Your task to perform on an android device: set an alarm Image 0: 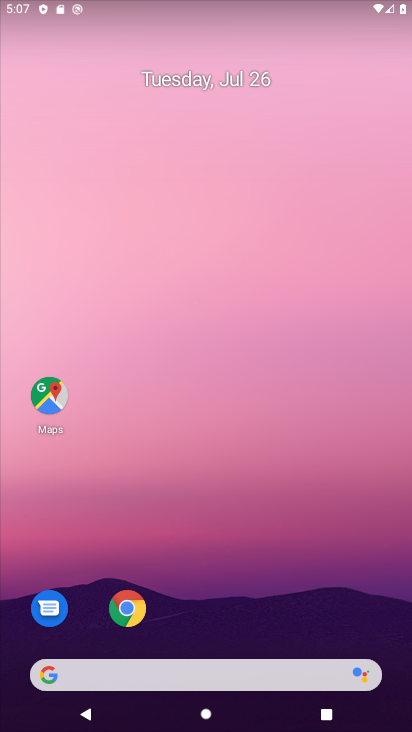
Step 0: drag from (384, 628) to (233, 63)
Your task to perform on an android device: set an alarm Image 1: 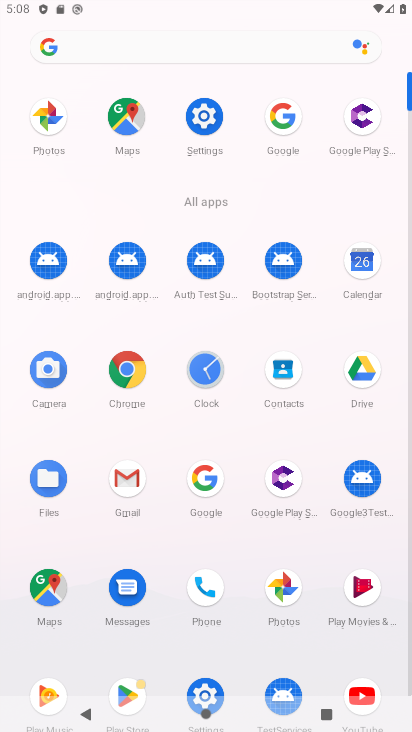
Step 1: click (209, 369)
Your task to perform on an android device: set an alarm Image 2: 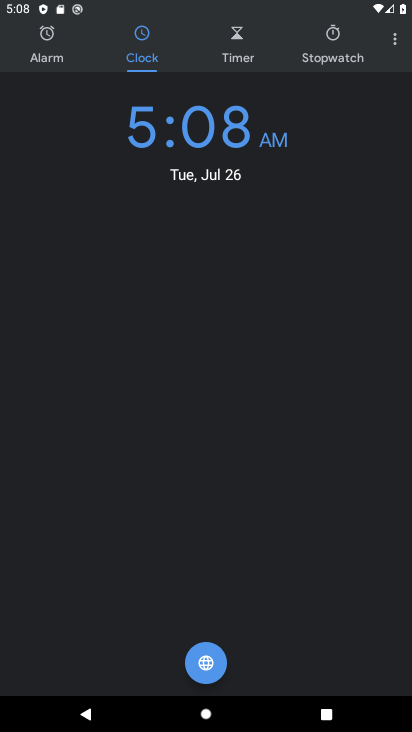
Step 2: click (42, 38)
Your task to perform on an android device: set an alarm Image 3: 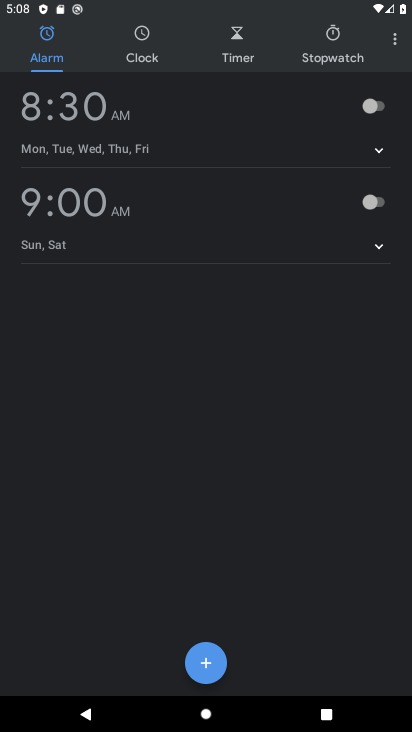
Step 3: click (374, 103)
Your task to perform on an android device: set an alarm Image 4: 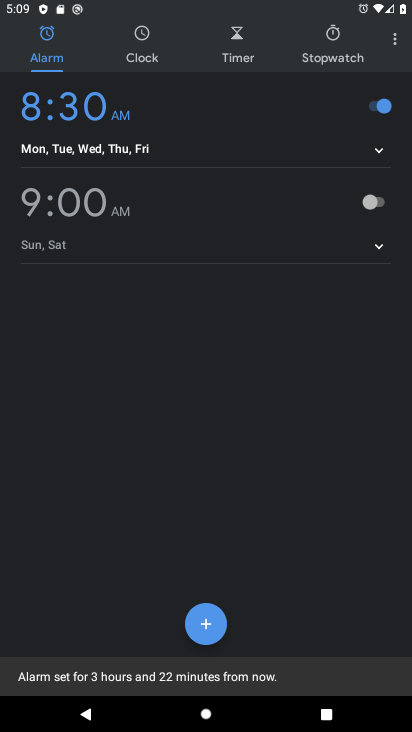
Step 4: task complete